Your task to perform on an android device: Open Google Maps Image 0: 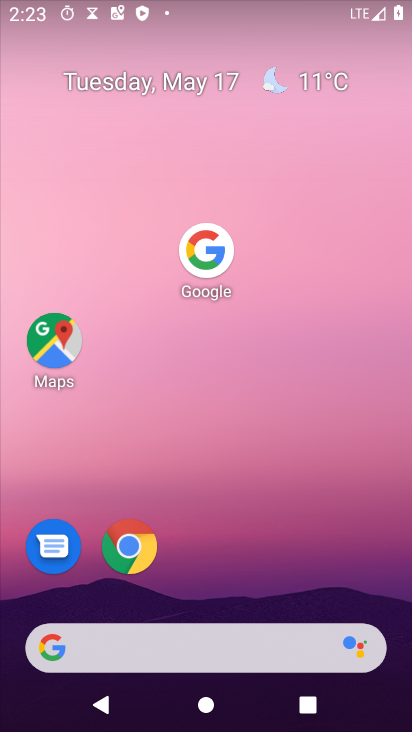
Step 0: press home button
Your task to perform on an android device: Open Google Maps Image 1: 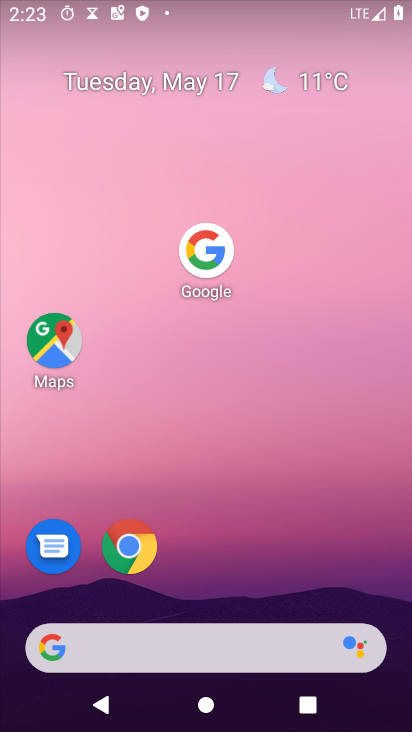
Step 1: click (51, 346)
Your task to perform on an android device: Open Google Maps Image 2: 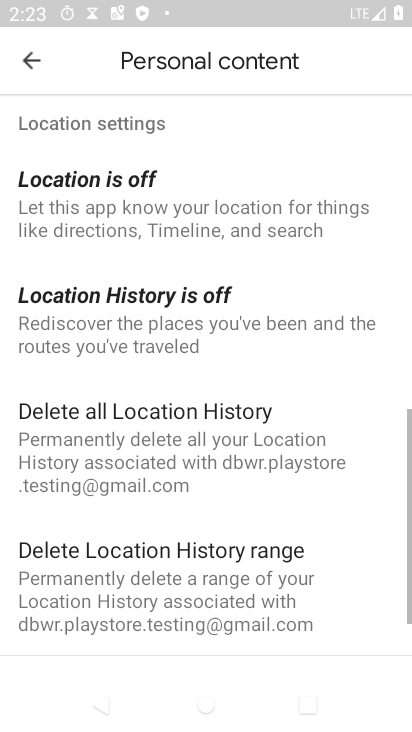
Step 2: click (35, 54)
Your task to perform on an android device: Open Google Maps Image 3: 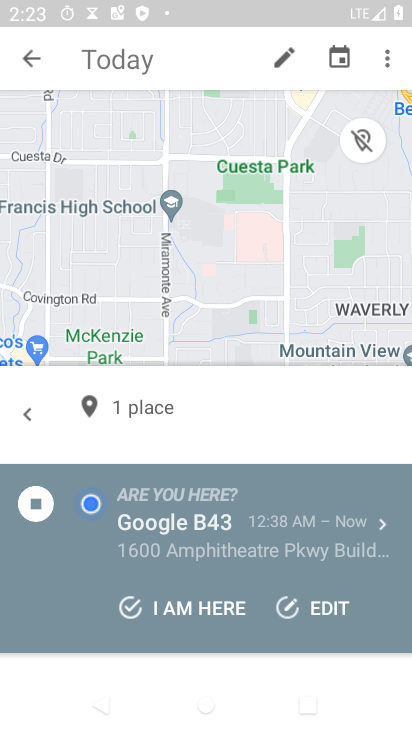
Step 3: click (35, 53)
Your task to perform on an android device: Open Google Maps Image 4: 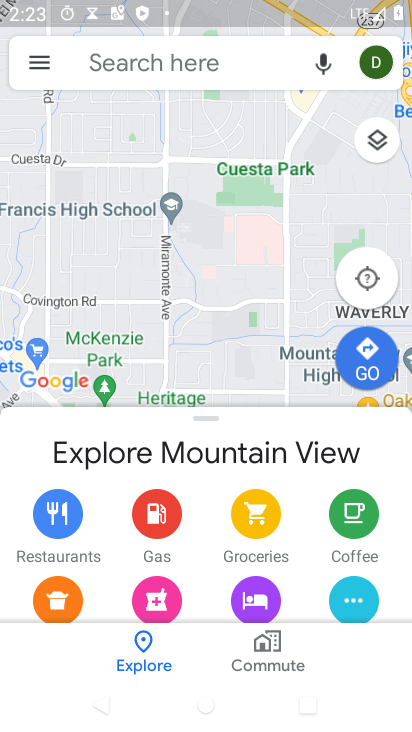
Step 4: task complete